Your task to perform on an android device: Open the stopwatch Image 0: 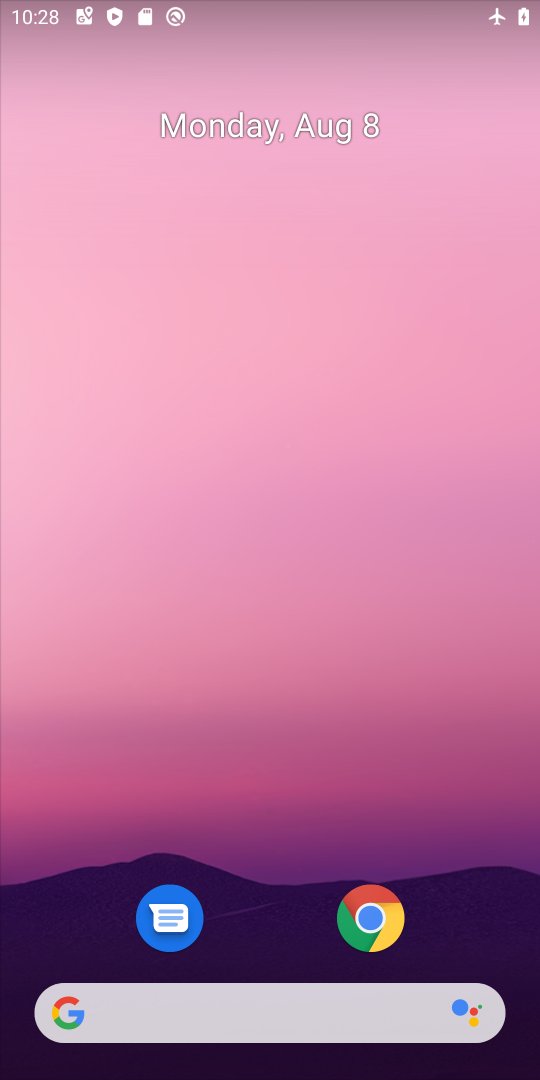
Step 0: drag from (218, 961) to (193, 122)
Your task to perform on an android device: Open the stopwatch Image 1: 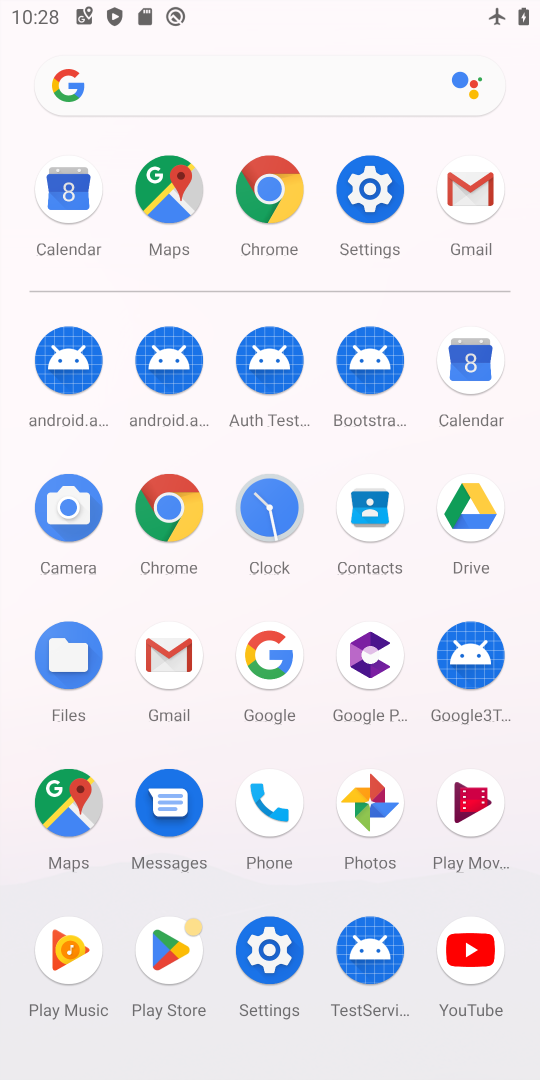
Step 1: click (266, 506)
Your task to perform on an android device: Open the stopwatch Image 2: 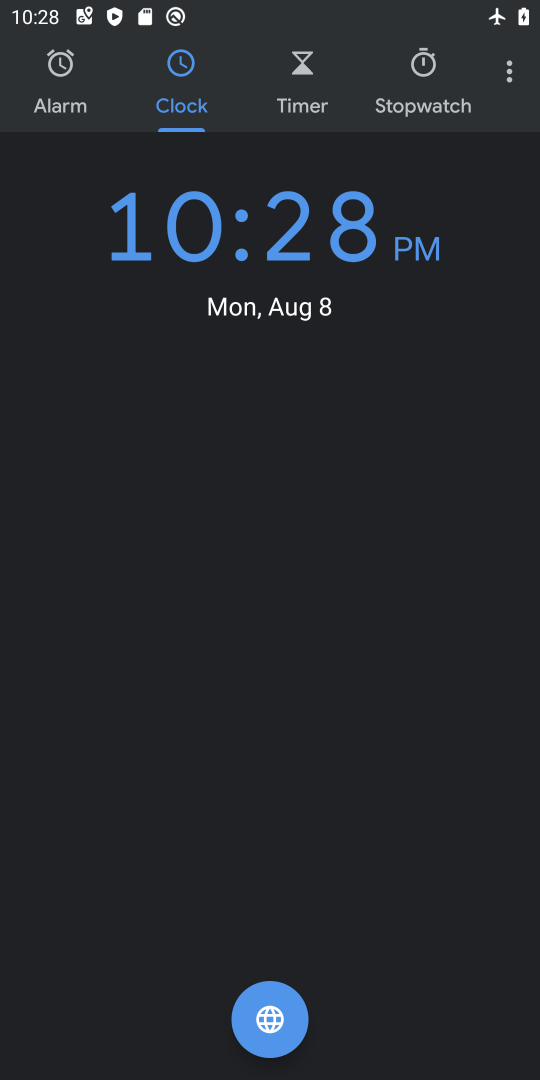
Step 2: click (415, 93)
Your task to perform on an android device: Open the stopwatch Image 3: 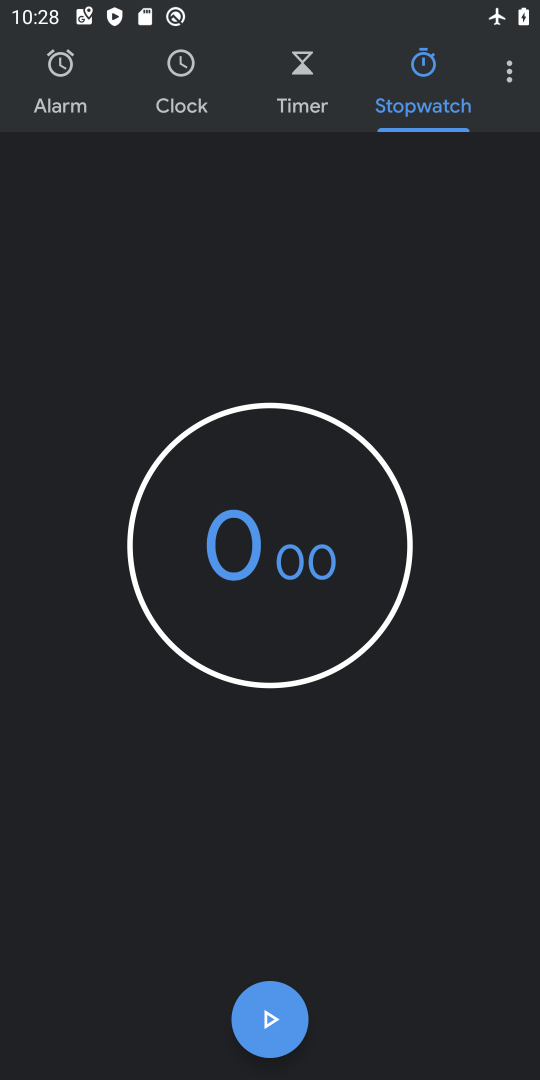
Step 3: click (267, 1029)
Your task to perform on an android device: Open the stopwatch Image 4: 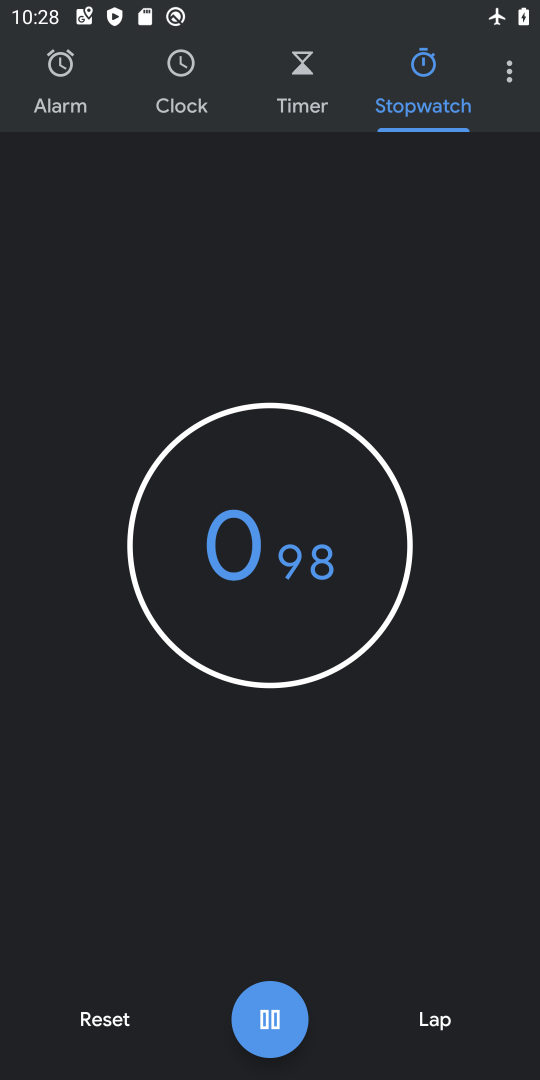
Step 4: click (266, 1028)
Your task to perform on an android device: Open the stopwatch Image 5: 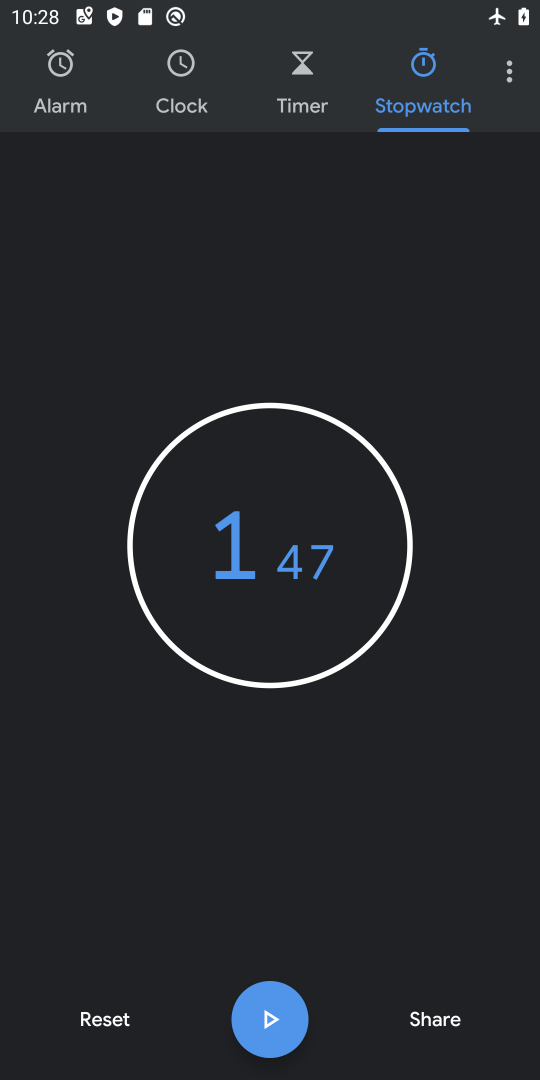
Step 5: task complete